Your task to perform on an android device: Clear the cart on costco.com. Add logitech g910 to the cart on costco.com, then select checkout. Image 0: 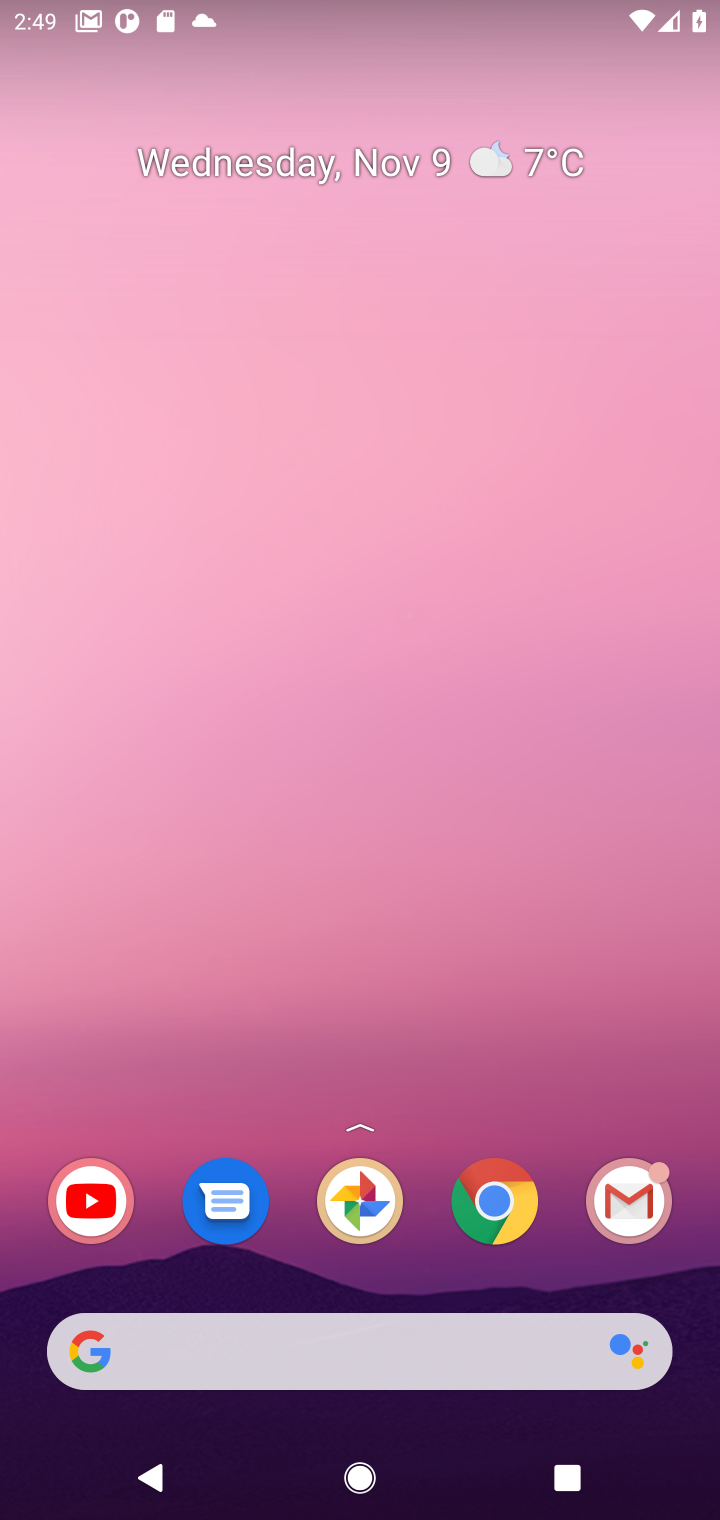
Step 0: click (323, 1354)
Your task to perform on an android device: Clear the cart on costco.com. Add logitech g910 to the cart on costco.com, then select checkout. Image 1: 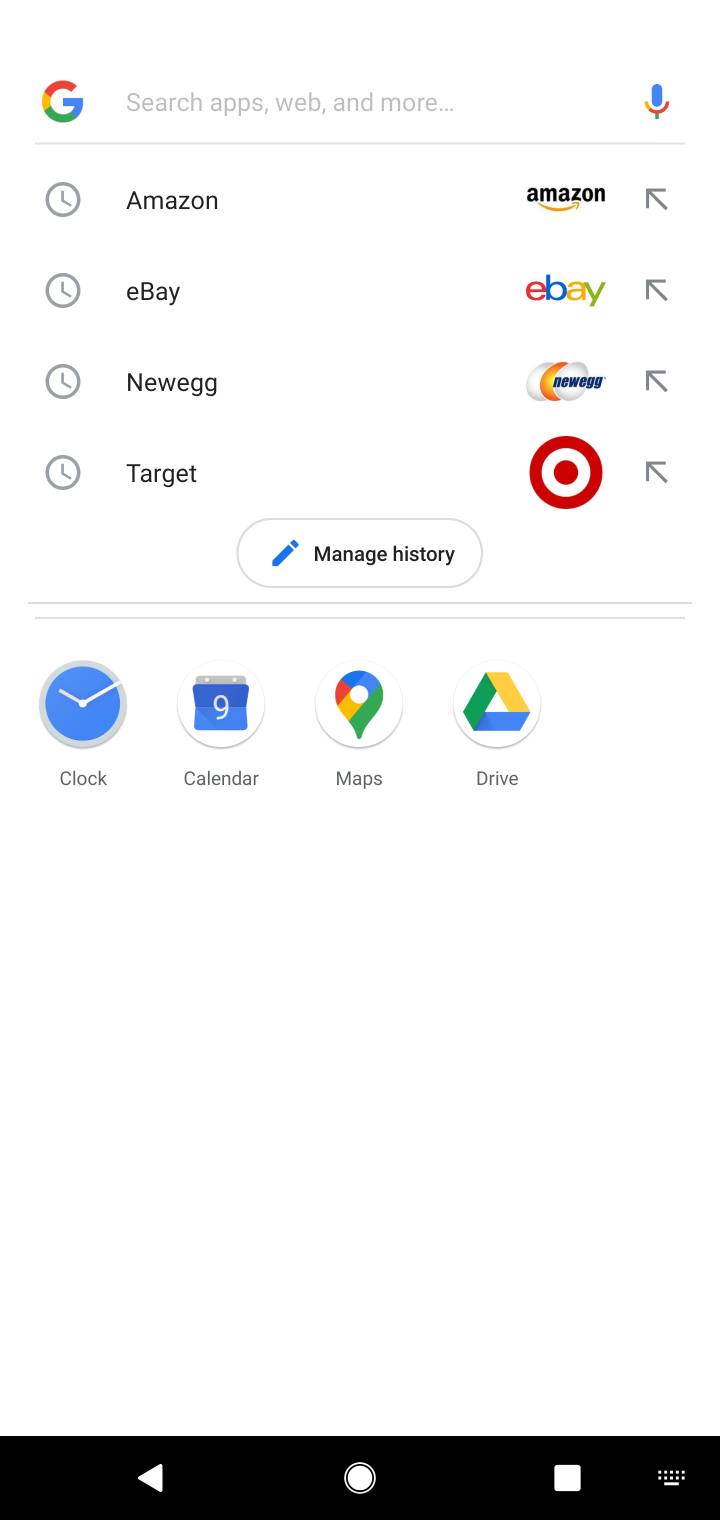
Step 1: type "costco.com"
Your task to perform on an android device: Clear the cart on costco.com. Add logitech g910 to the cart on costco.com, then select checkout. Image 2: 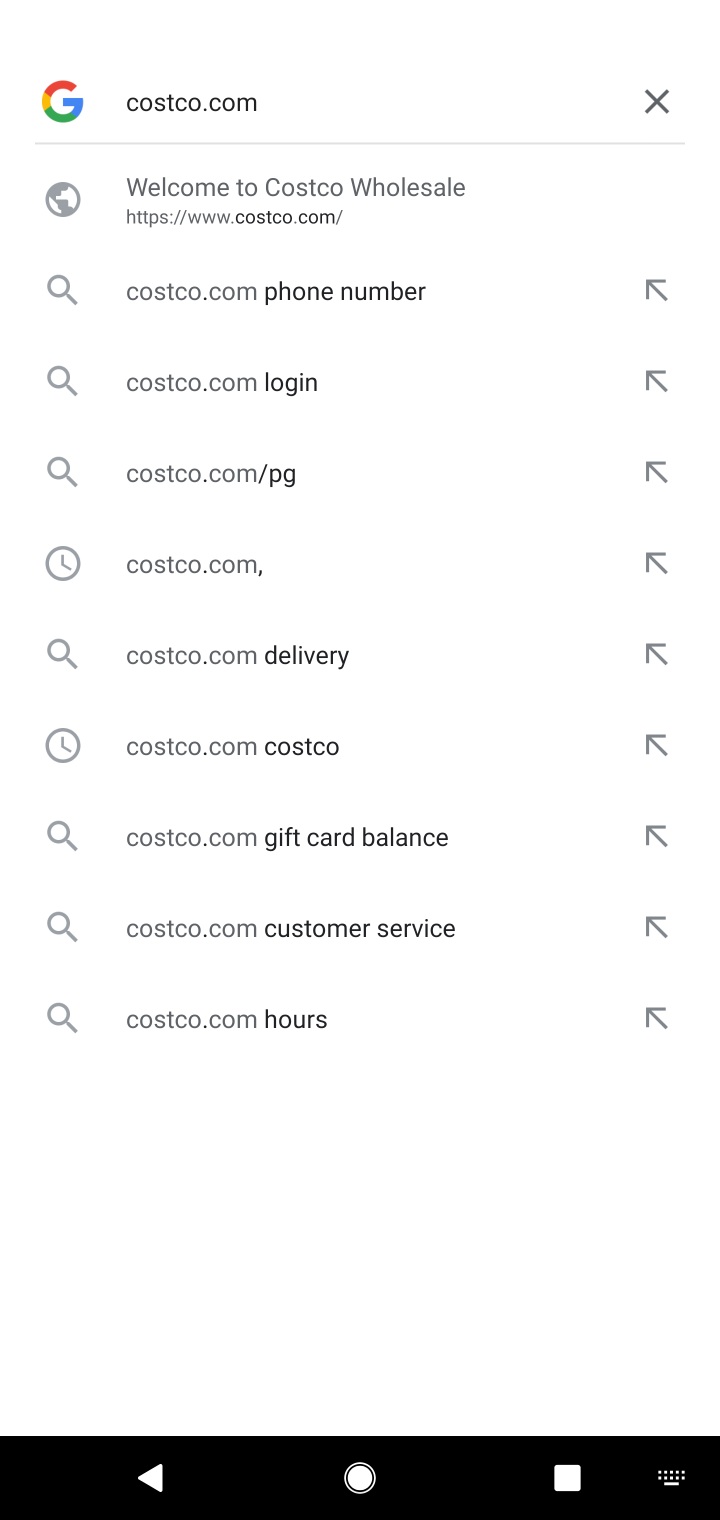
Step 2: click (215, 200)
Your task to perform on an android device: Clear the cart on costco.com. Add logitech g910 to the cart on costco.com, then select checkout. Image 3: 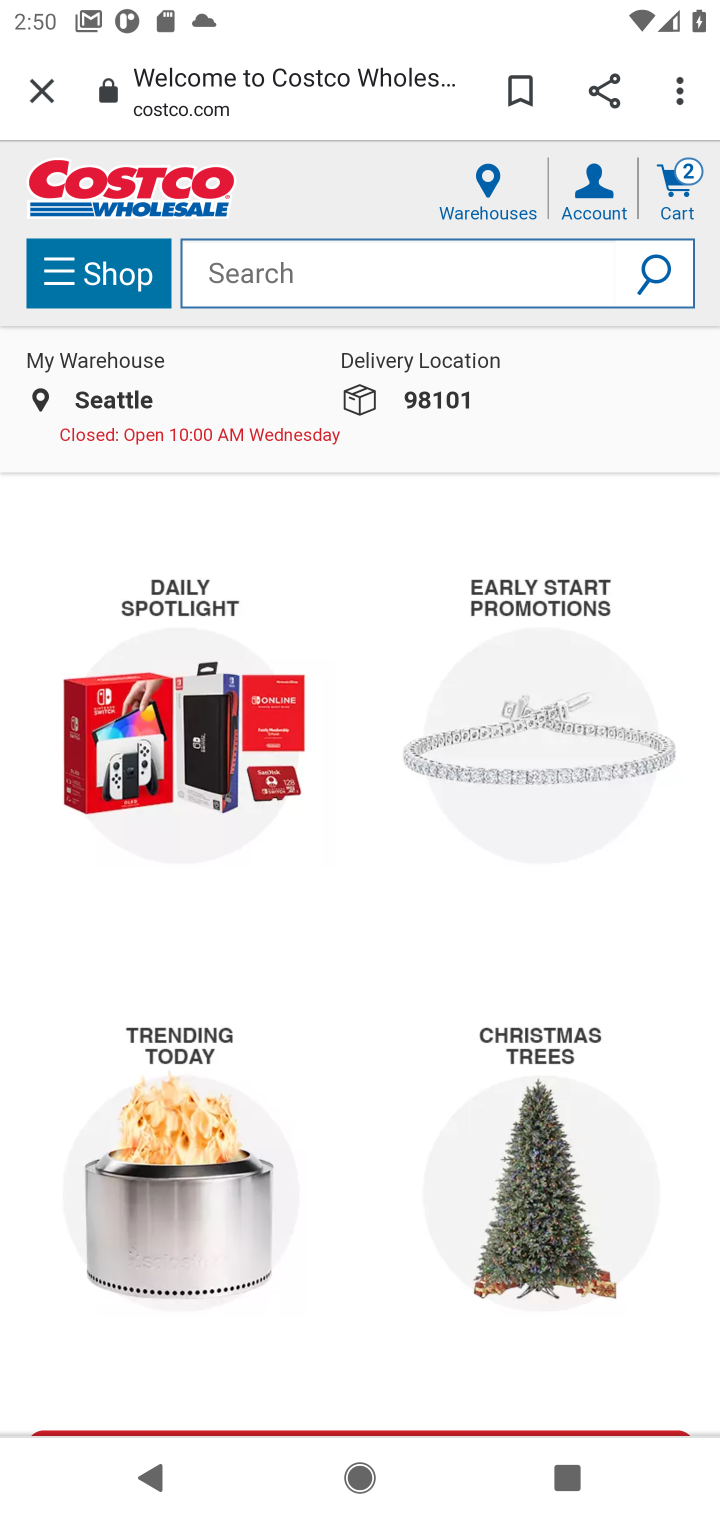
Step 3: click (418, 270)
Your task to perform on an android device: Clear the cart on costco.com. Add logitech g910 to the cart on costco.com, then select checkout. Image 4: 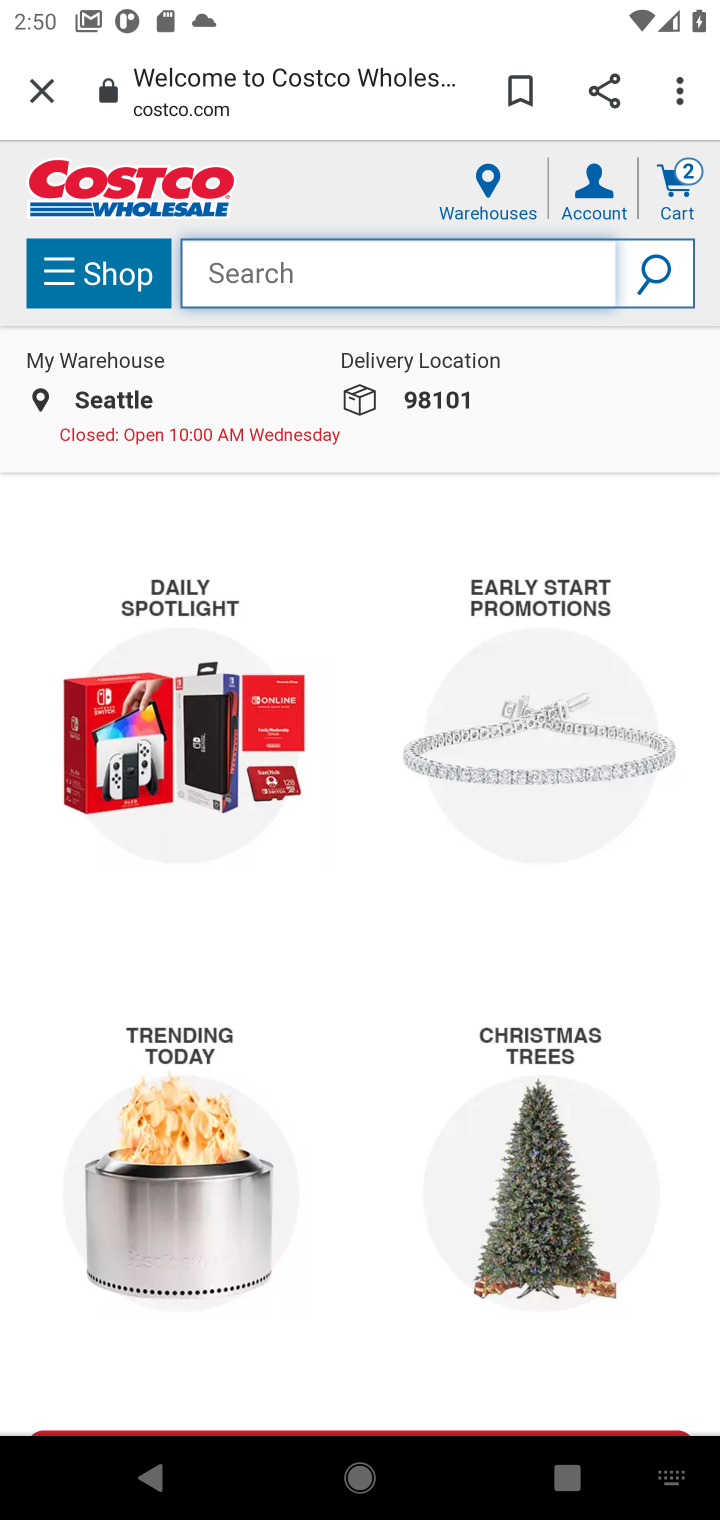
Step 4: type " logitech g910 "
Your task to perform on an android device: Clear the cart on costco.com. Add logitech g910 to the cart on costco.com, then select checkout. Image 5: 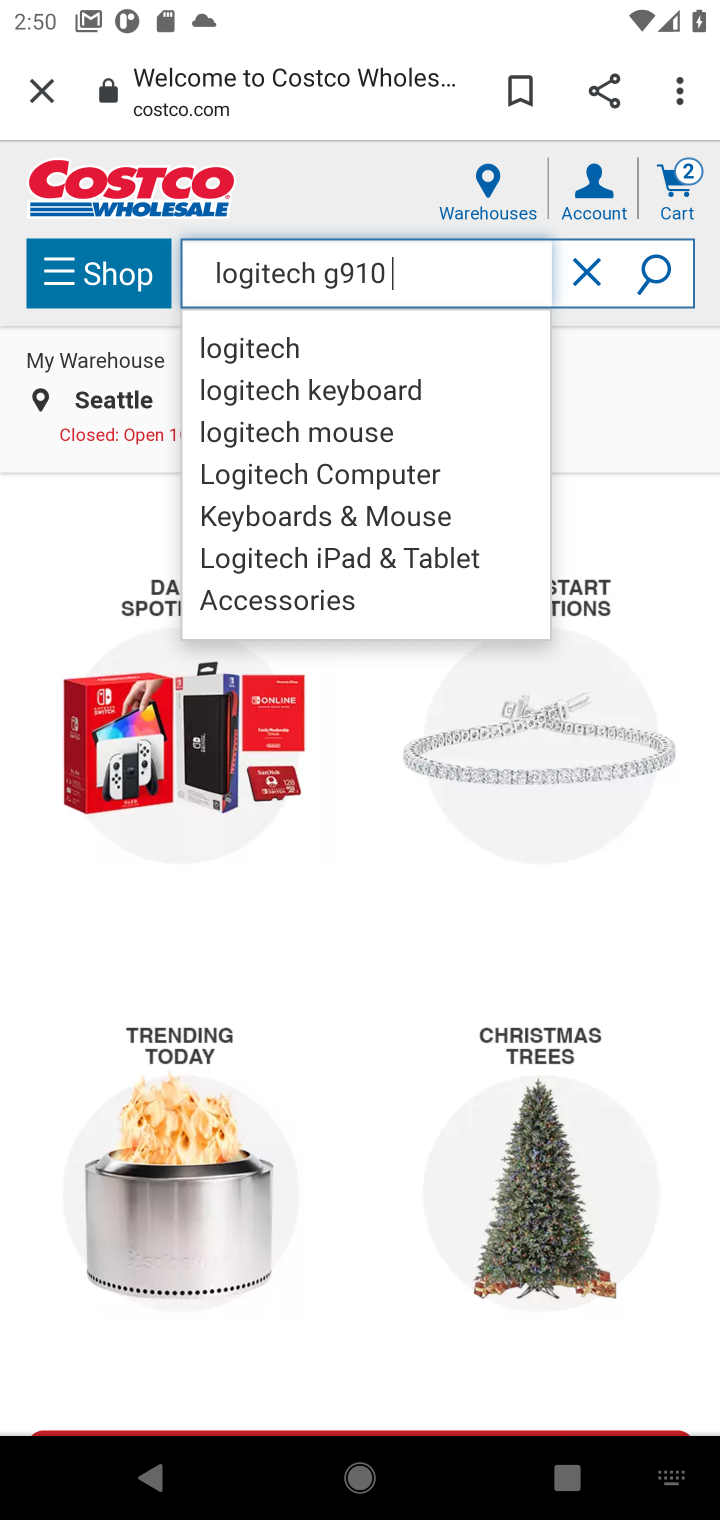
Step 5: click (288, 343)
Your task to perform on an android device: Clear the cart on costco.com. Add logitech g910 to the cart on costco.com, then select checkout. Image 6: 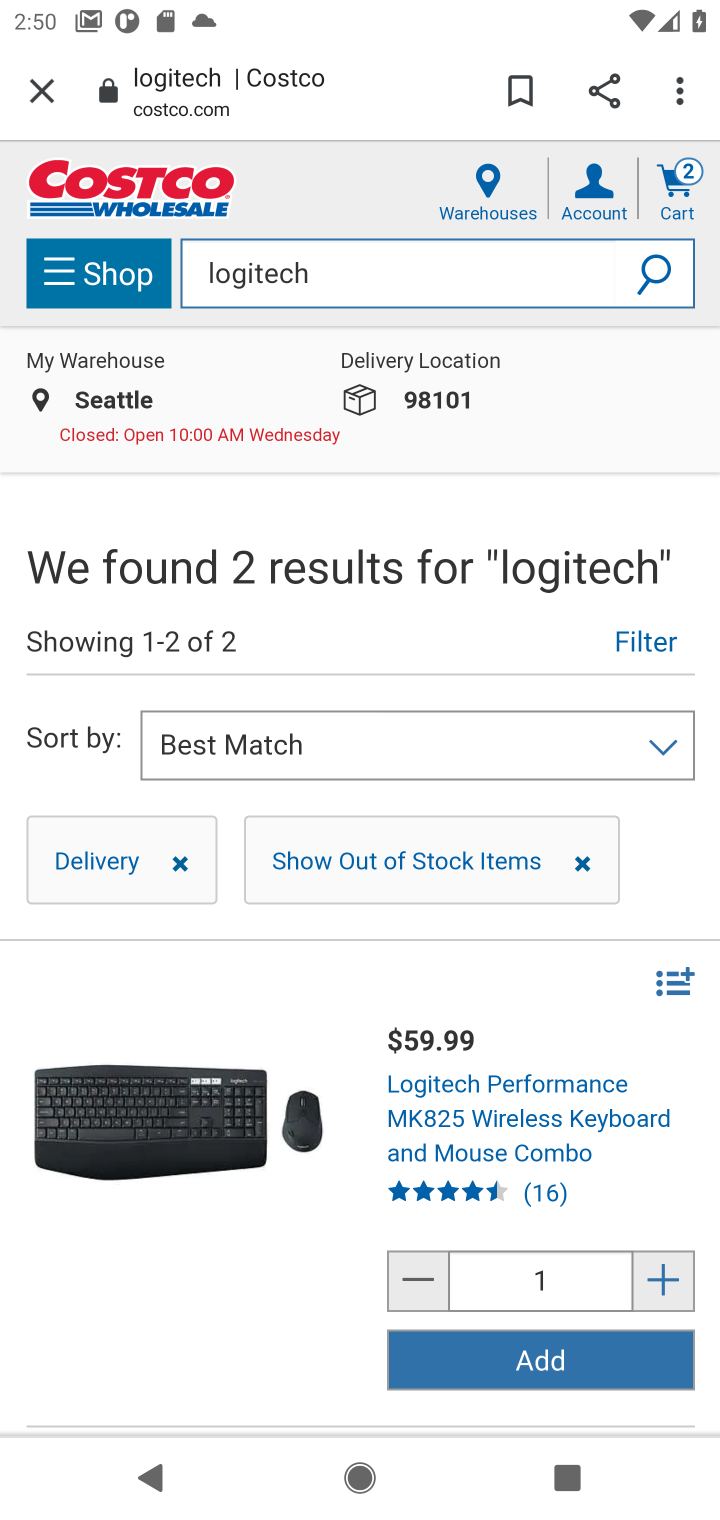
Step 6: click (549, 1328)
Your task to perform on an android device: Clear the cart on costco.com. Add logitech g910 to the cart on costco.com, then select checkout. Image 7: 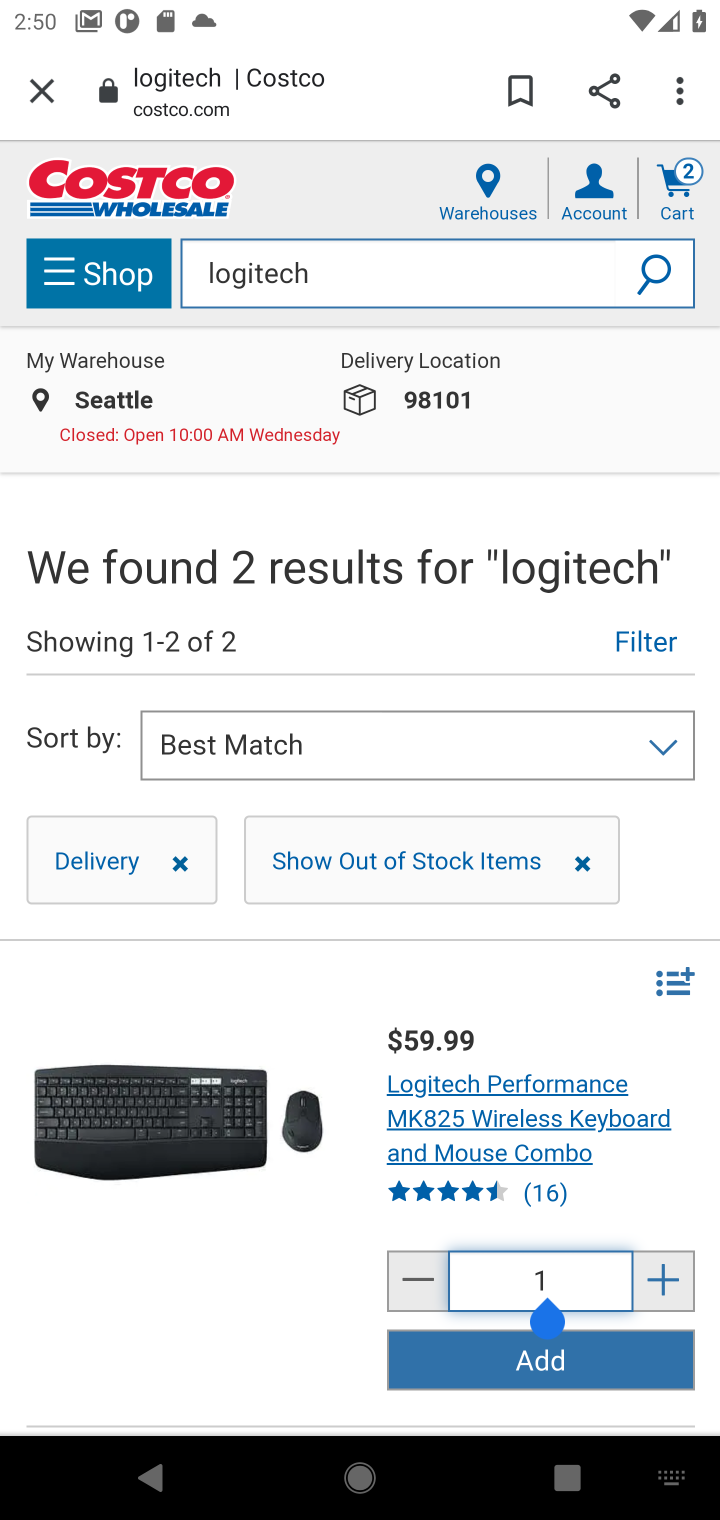
Step 7: click (516, 1377)
Your task to perform on an android device: Clear the cart on costco.com. Add logitech g910 to the cart on costco.com, then select checkout. Image 8: 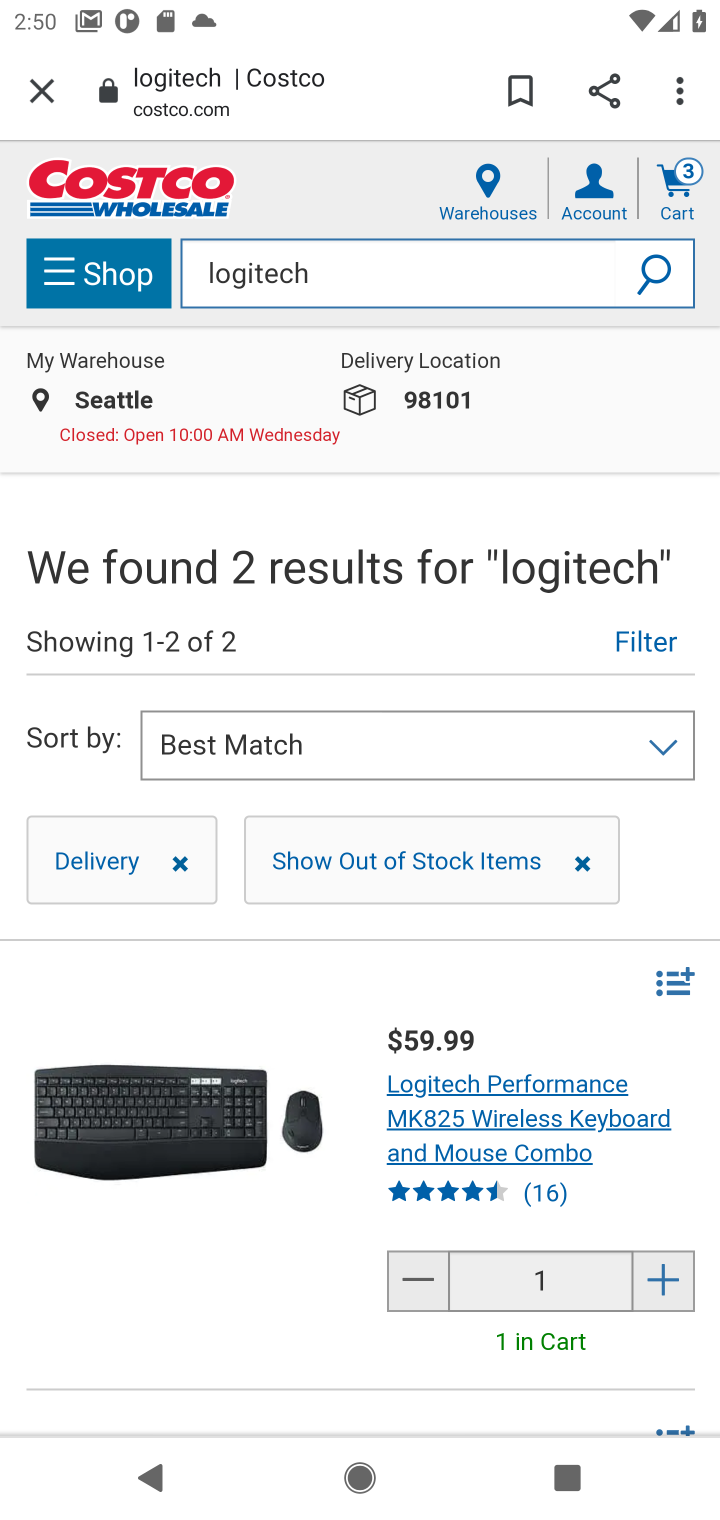
Step 8: task complete